Your task to perform on an android device: Open Google Chrome Image 0: 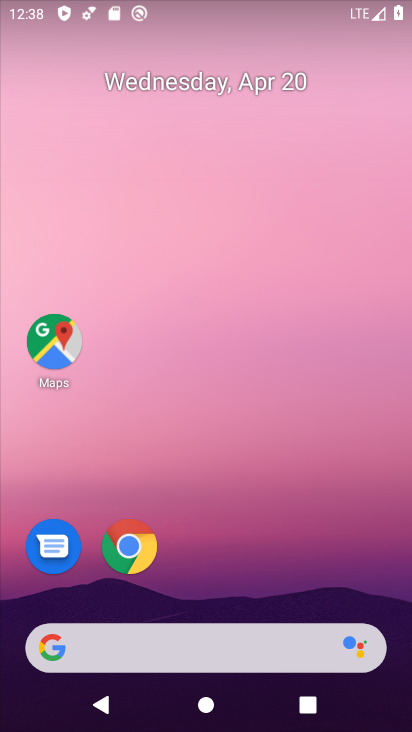
Step 0: drag from (277, 425) to (380, 8)
Your task to perform on an android device: Open Google Chrome Image 1: 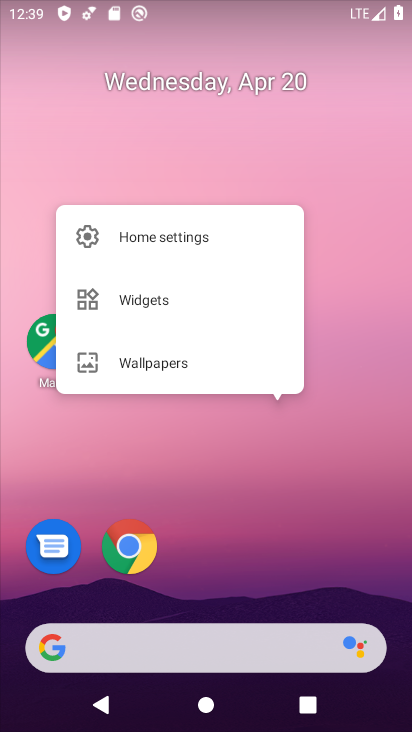
Step 1: drag from (274, 610) to (398, 34)
Your task to perform on an android device: Open Google Chrome Image 2: 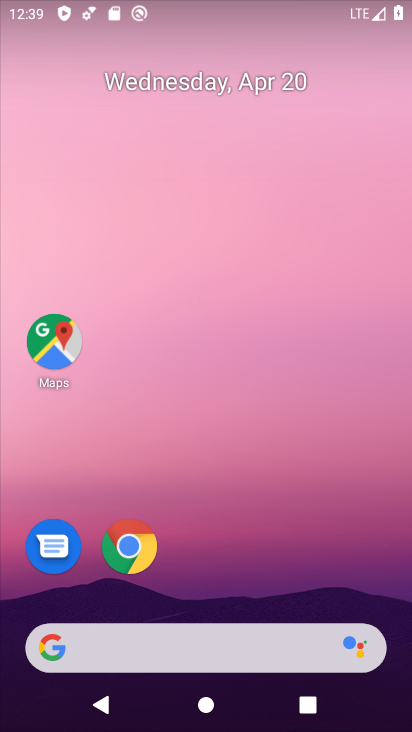
Step 2: drag from (219, 618) to (306, 24)
Your task to perform on an android device: Open Google Chrome Image 3: 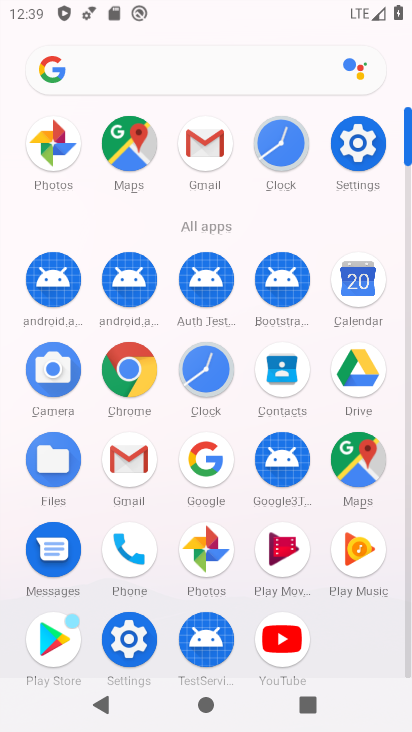
Step 3: click (137, 378)
Your task to perform on an android device: Open Google Chrome Image 4: 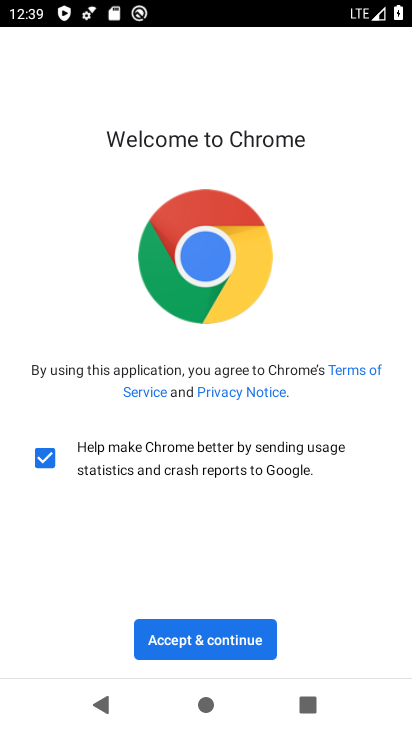
Step 4: click (202, 636)
Your task to perform on an android device: Open Google Chrome Image 5: 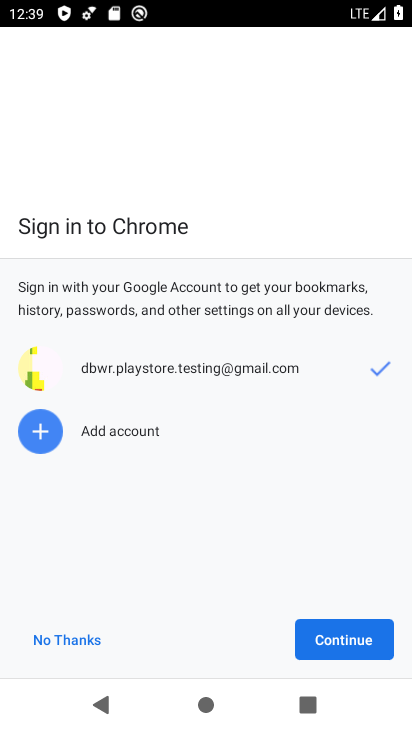
Step 5: click (350, 640)
Your task to perform on an android device: Open Google Chrome Image 6: 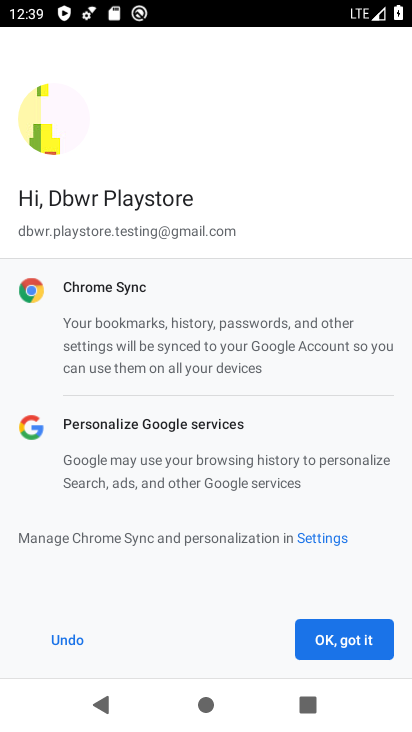
Step 6: click (352, 651)
Your task to perform on an android device: Open Google Chrome Image 7: 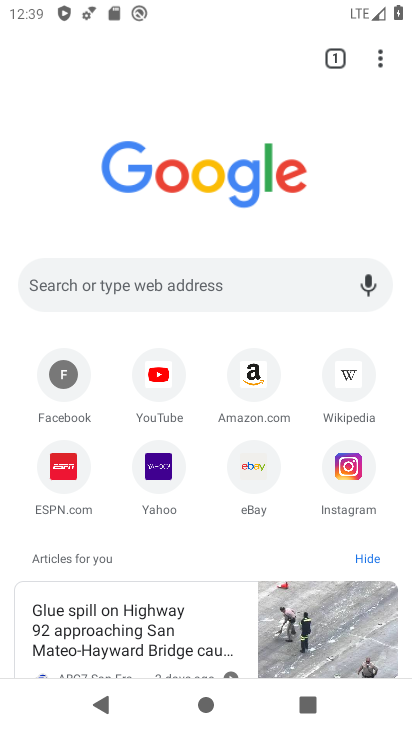
Step 7: task complete